Your task to perform on an android device: Go to Yahoo.com Image 0: 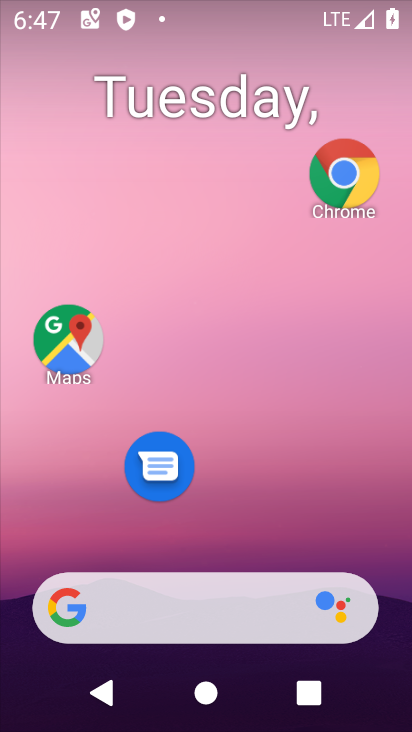
Step 0: click (361, 195)
Your task to perform on an android device: Go to Yahoo.com Image 1: 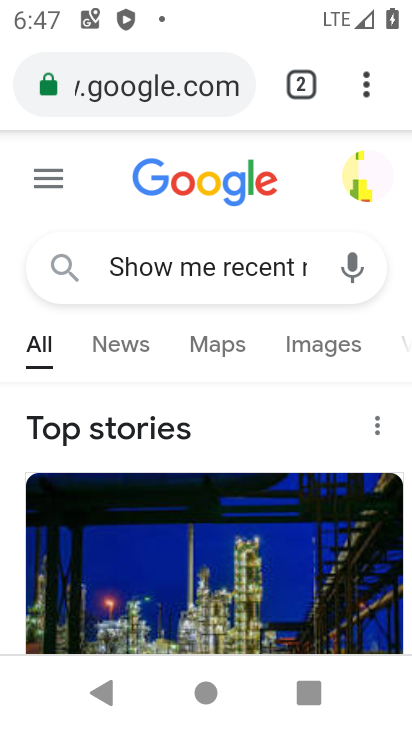
Step 1: click (128, 101)
Your task to perform on an android device: Go to Yahoo.com Image 2: 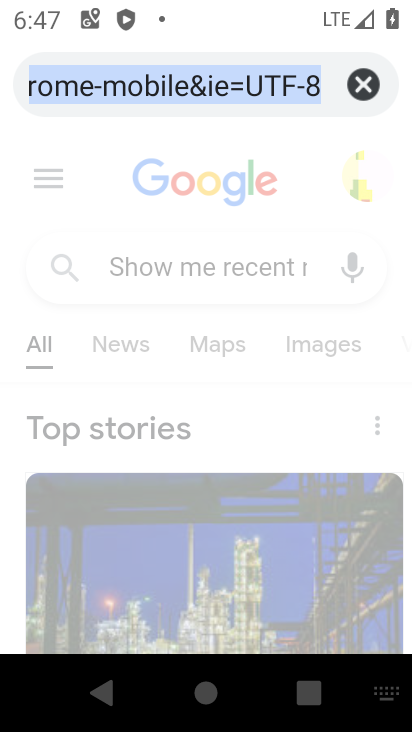
Step 2: click (358, 97)
Your task to perform on an android device: Go to Yahoo.com Image 3: 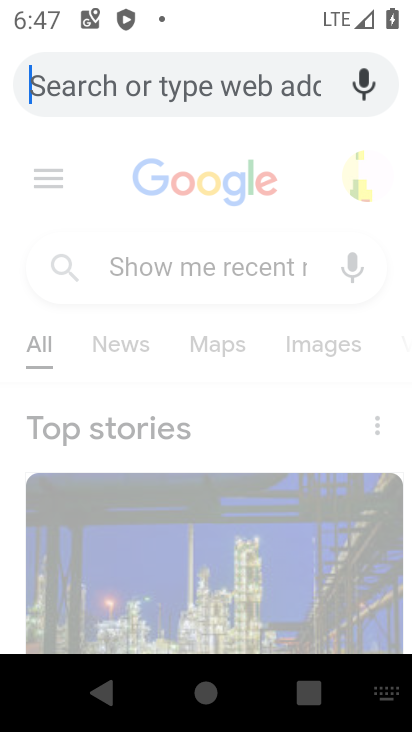
Step 3: type " Yahoo.com"
Your task to perform on an android device: Go to Yahoo.com Image 4: 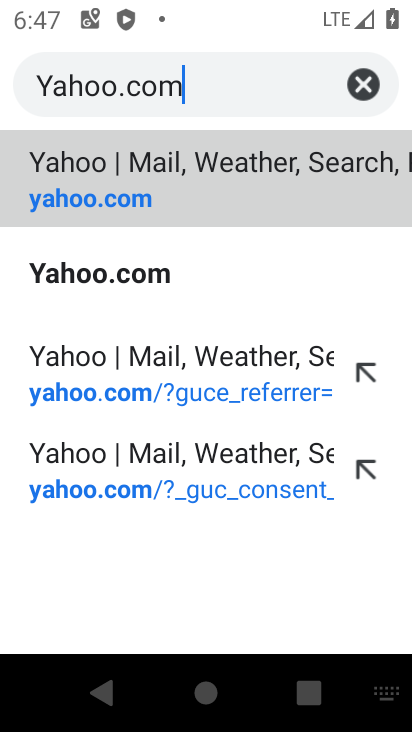
Step 4: click (314, 146)
Your task to perform on an android device: Go to Yahoo.com Image 5: 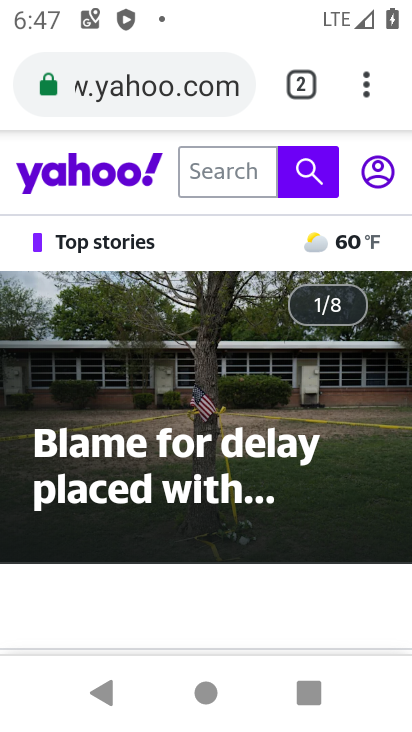
Step 5: task complete